Your task to perform on an android device: Search for logitech g910 on newegg, select the first entry, and add it to the cart. Image 0: 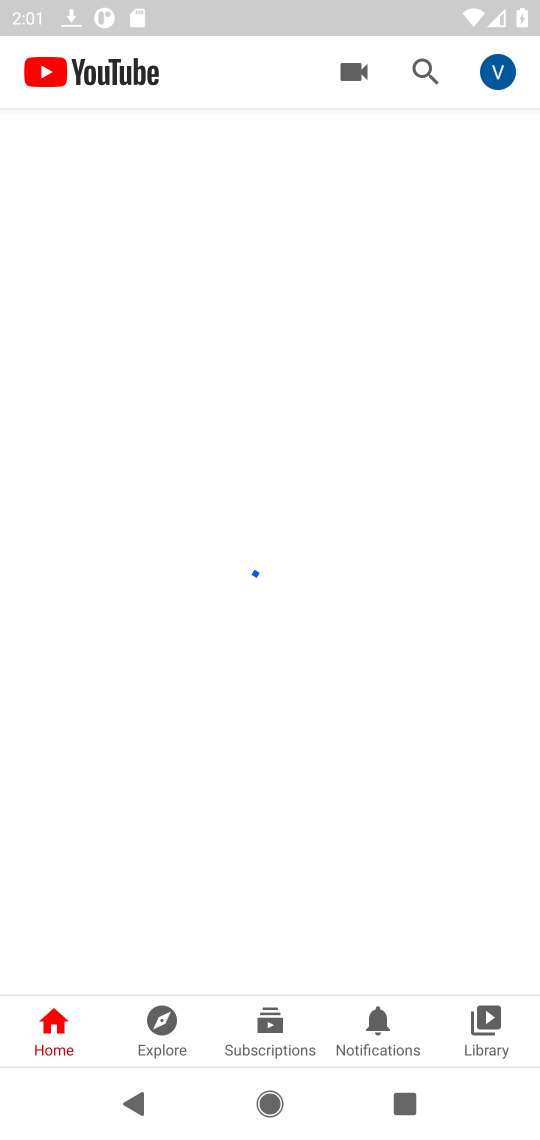
Step 0: press home button
Your task to perform on an android device: Search for logitech g910 on newegg, select the first entry, and add it to the cart. Image 1: 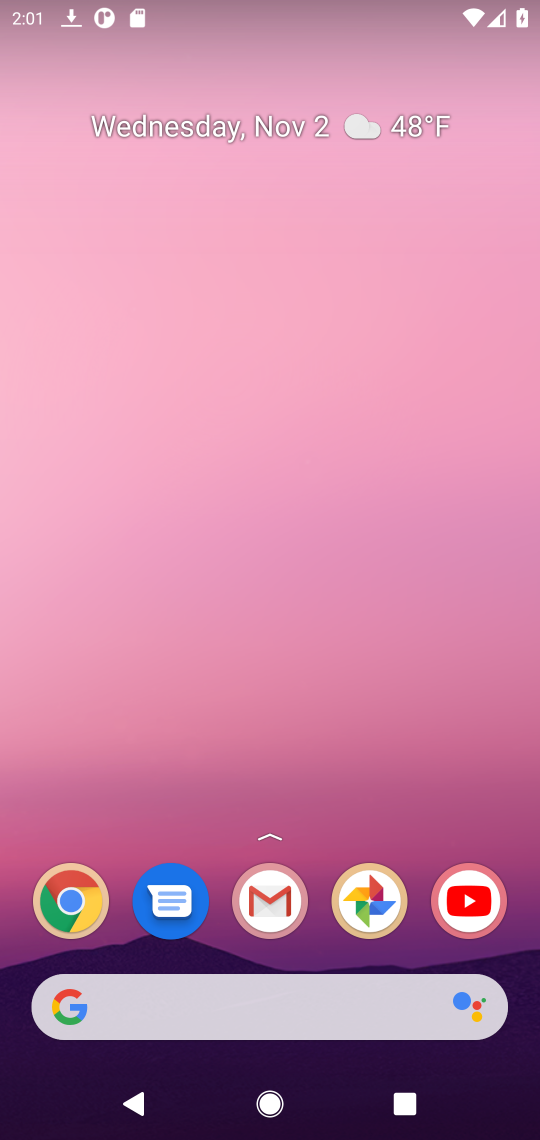
Step 1: drag from (297, 919) to (354, 274)
Your task to perform on an android device: Search for logitech g910 on newegg, select the first entry, and add it to the cart. Image 2: 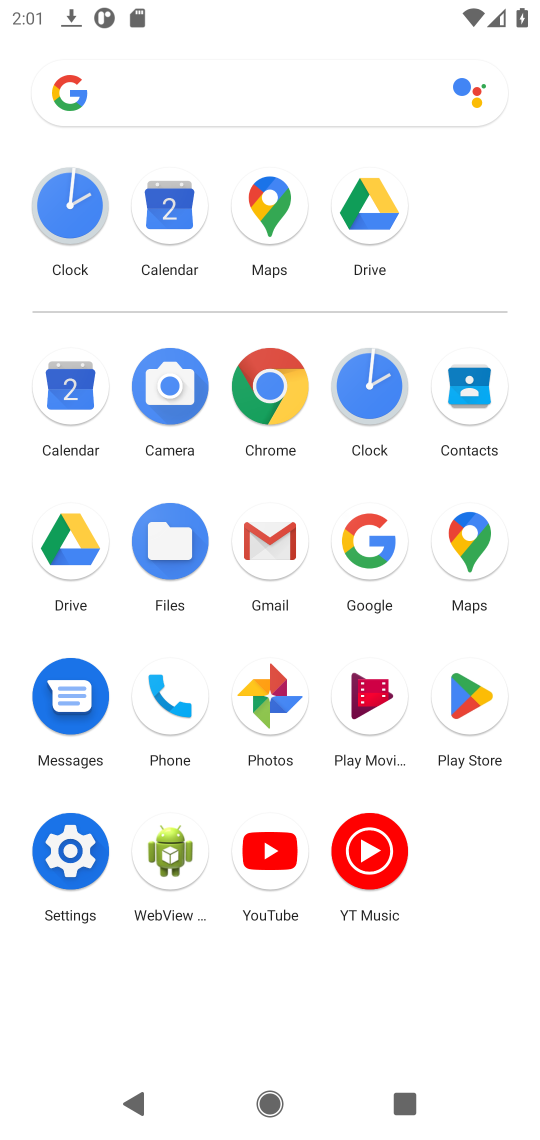
Step 2: click (264, 390)
Your task to perform on an android device: Search for logitech g910 on newegg, select the first entry, and add it to the cart. Image 3: 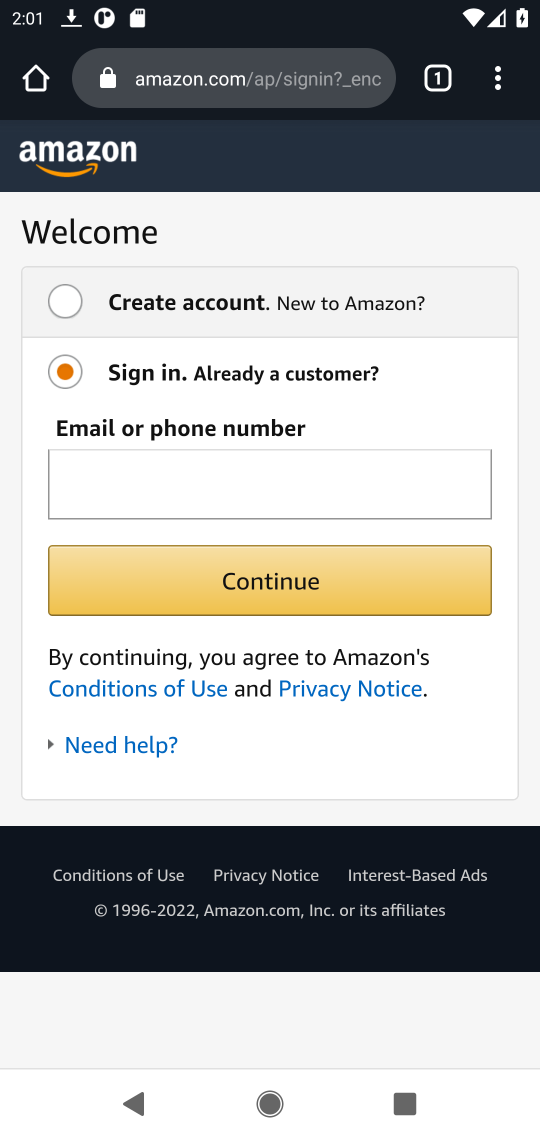
Step 3: click (337, 85)
Your task to perform on an android device: Search for logitech g910 on newegg, select the first entry, and add it to the cart. Image 4: 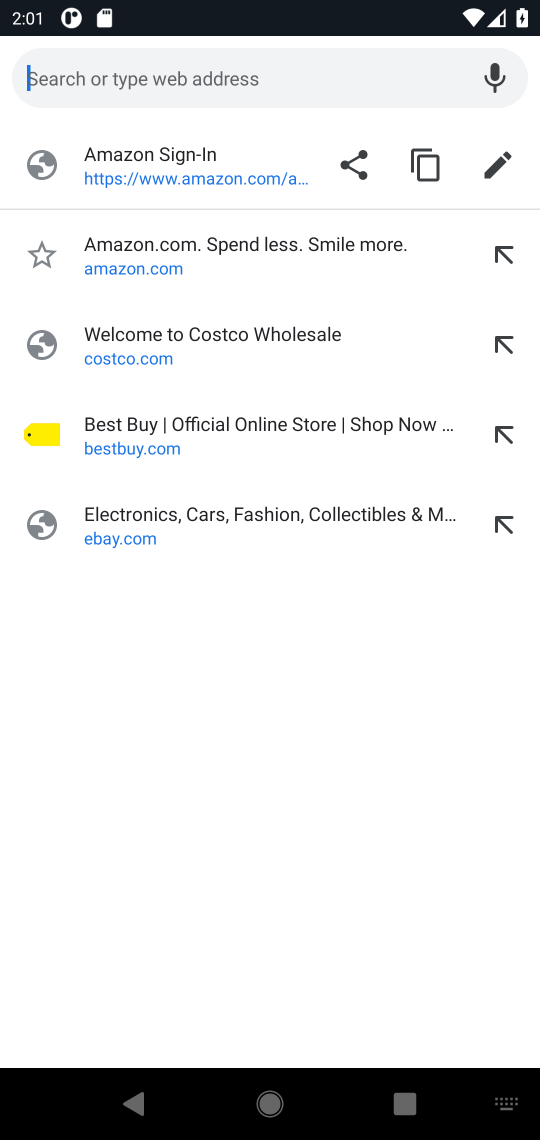
Step 4: type "newegg.com"
Your task to perform on an android device: Search for logitech g910 on newegg, select the first entry, and add it to the cart. Image 5: 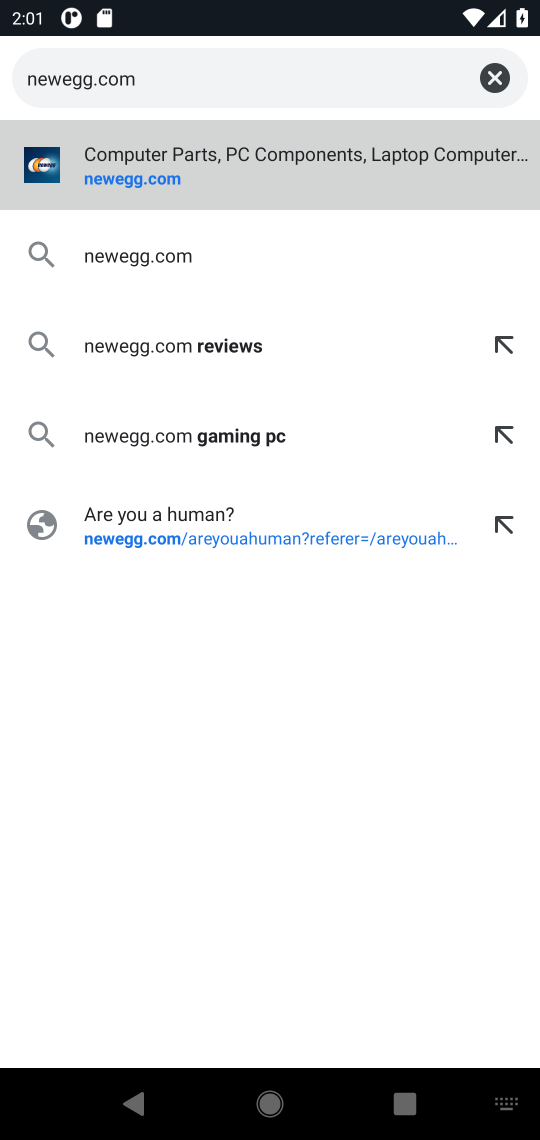
Step 5: press enter
Your task to perform on an android device: Search for logitech g910 on newegg, select the first entry, and add it to the cart. Image 6: 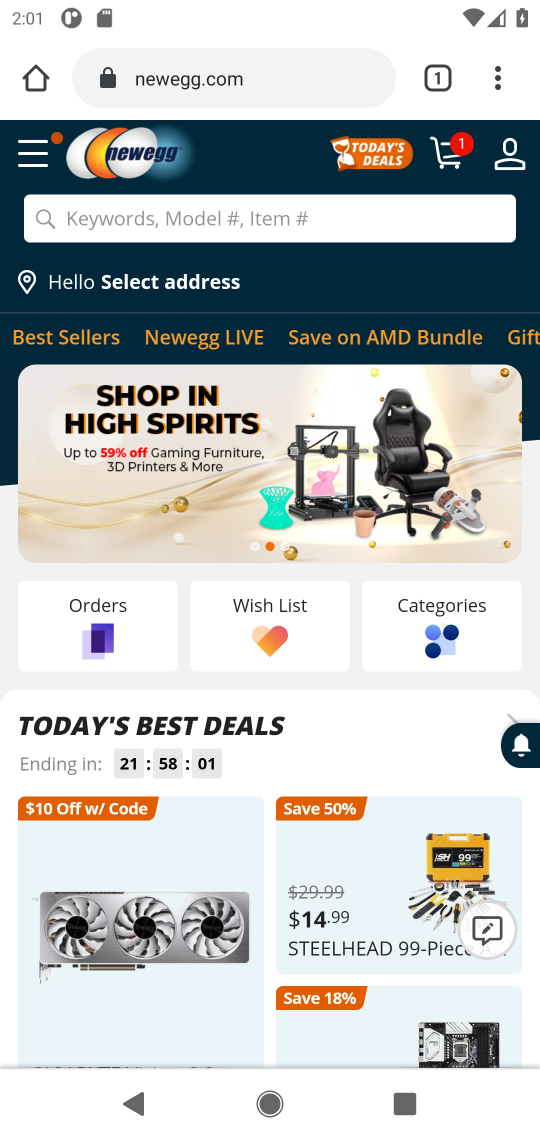
Step 6: click (286, 228)
Your task to perform on an android device: Search for logitech g910 on newegg, select the first entry, and add it to the cart. Image 7: 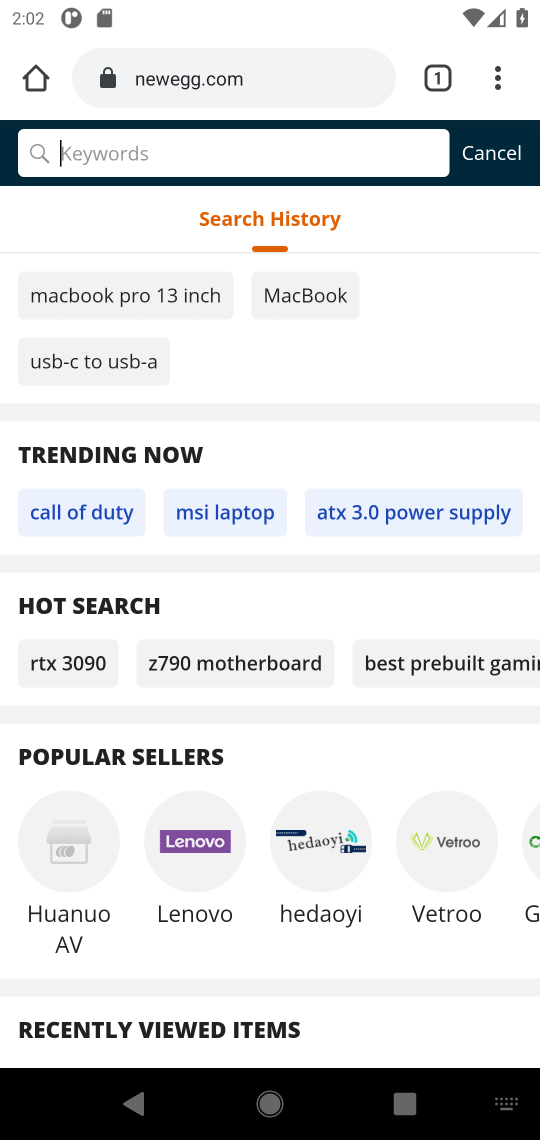
Step 7: type "logitech g910"
Your task to perform on an android device: Search for logitech g910 on newegg, select the first entry, and add it to the cart. Image 8: 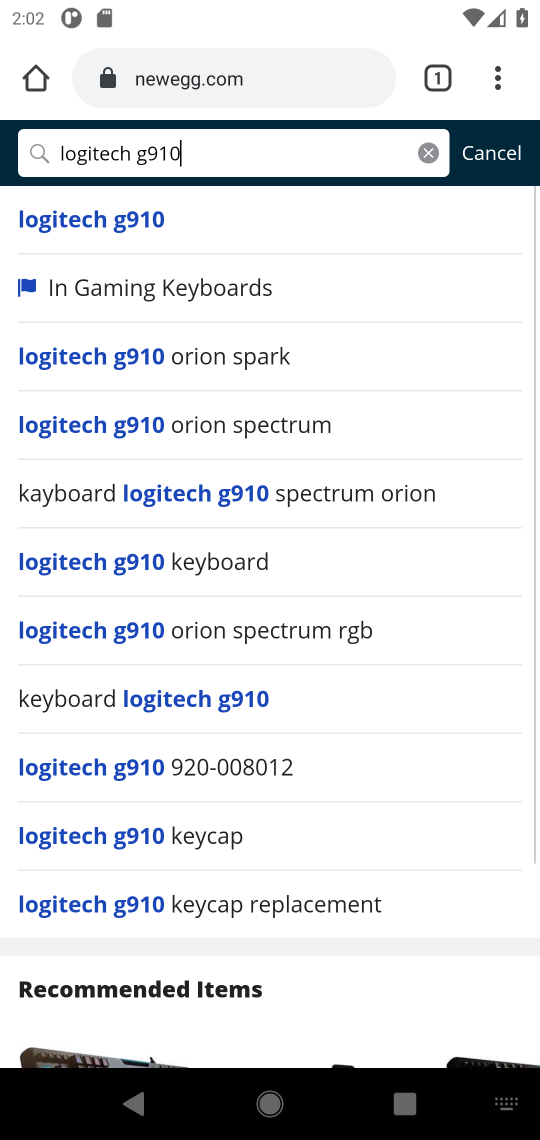
Step 8: press enter
Your task to perform on an android device: Search for logitech g910 on newegg, select the first entry, and add it to the cart. Image 9: 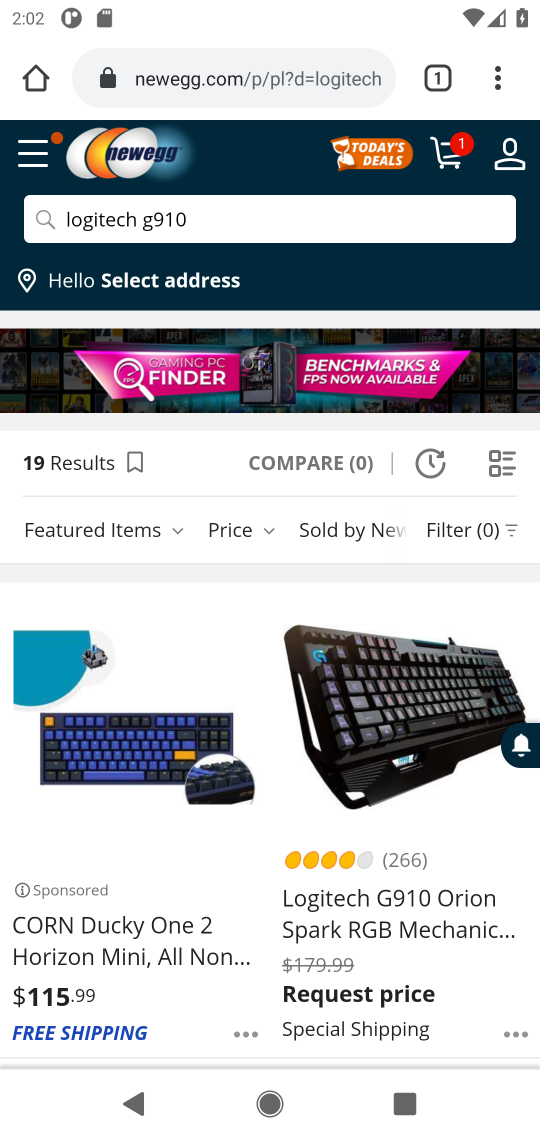
Step 9: click (410, 922)
Your task to perform on an android device: Search for logitech g910 on newegg, select the first entry, and add it to the cart. Image 10: 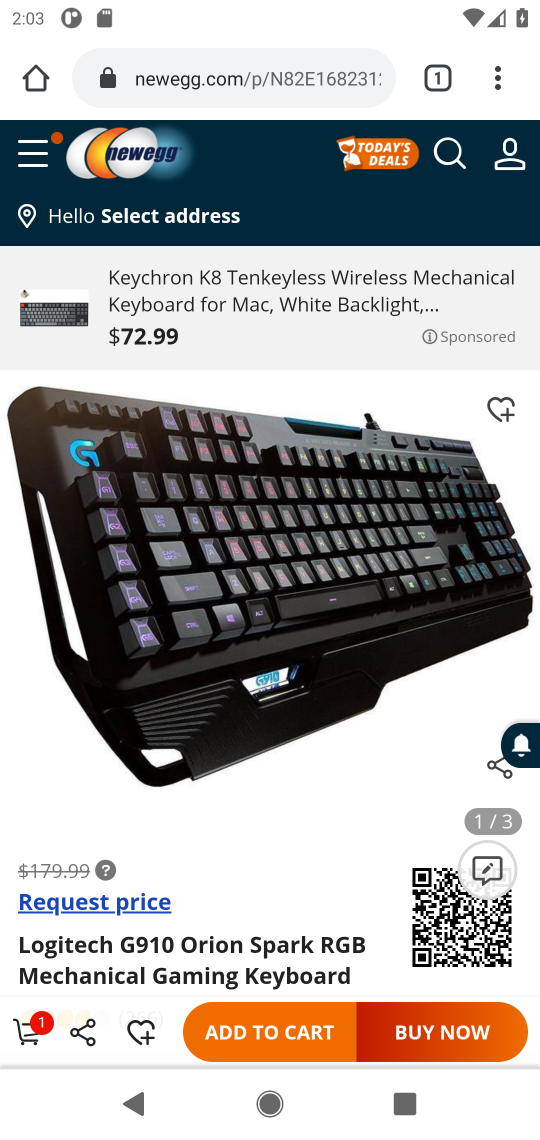
Step 10: click (249, 1044)
Your task to perform on an android device: Search for logitech g910 on newegg, select the first entry, and add it to the cart. Image 11: 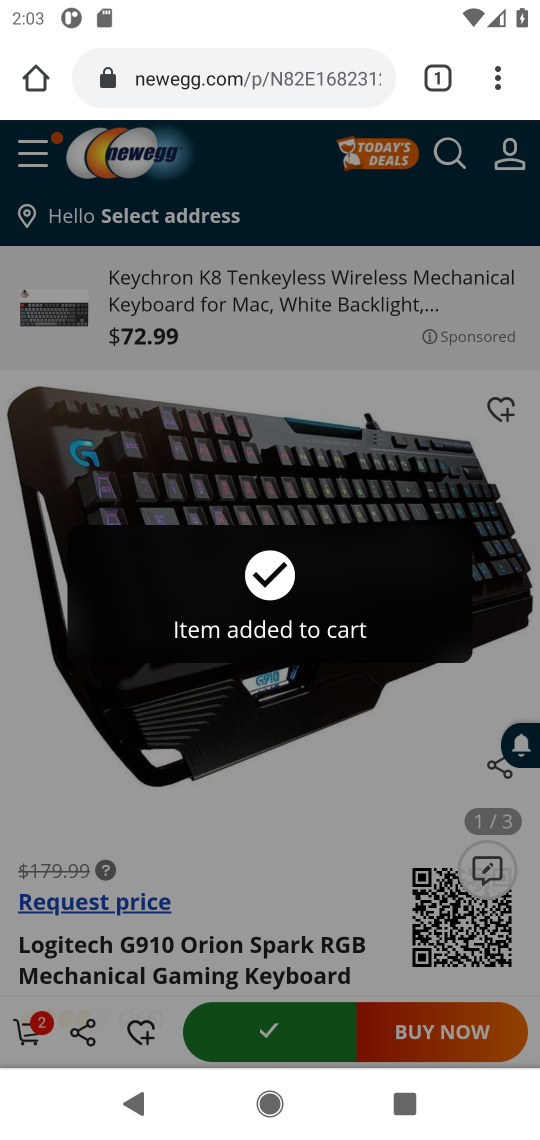
Step 11: task complete